Your task to perform on an android device: Go to Google Image 0: 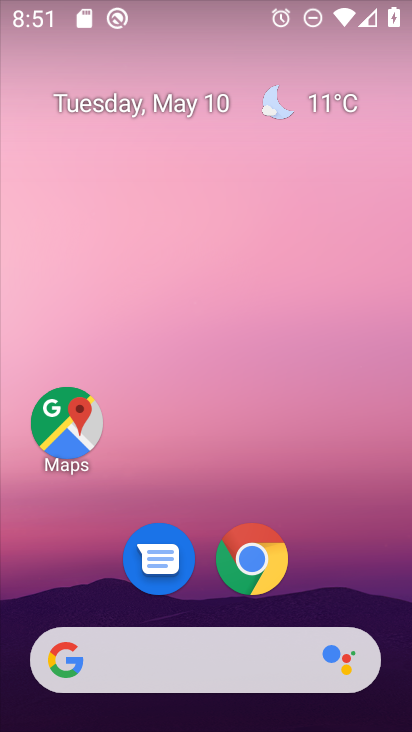
Step 0: drag from (213, 727) to (208, 62)
Your task to perform on an android device: Go to Google Image 1: 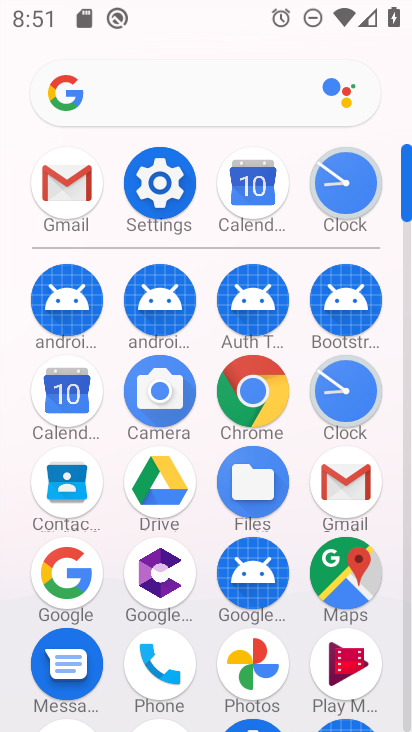
Step 1: drag from (200, 639) to (193, 281)
Your task to perform on an android device: Go to Google Image 2: 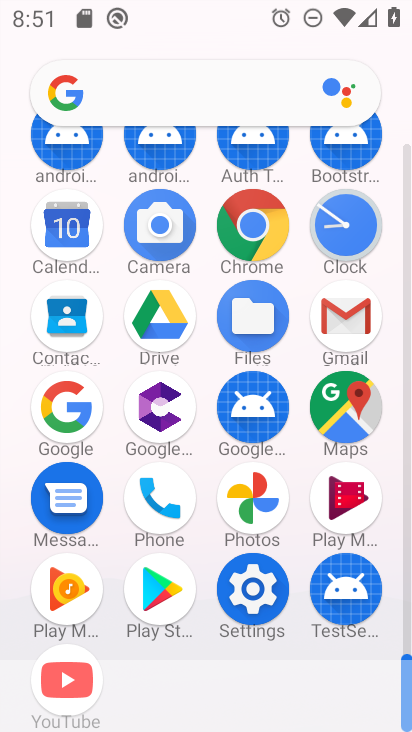
Step 2: click (57, 407)
Your task to perform on an android device: Go to Google Image 3: 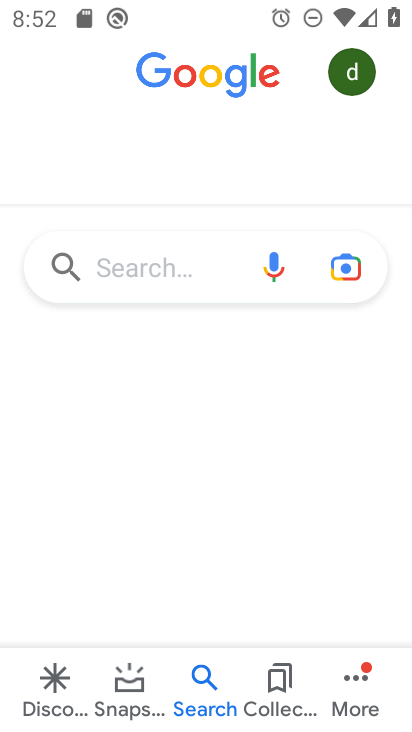
Step 3: task complete